Your task to perform on an android device: clear all cookies in the chrome app Image 0: 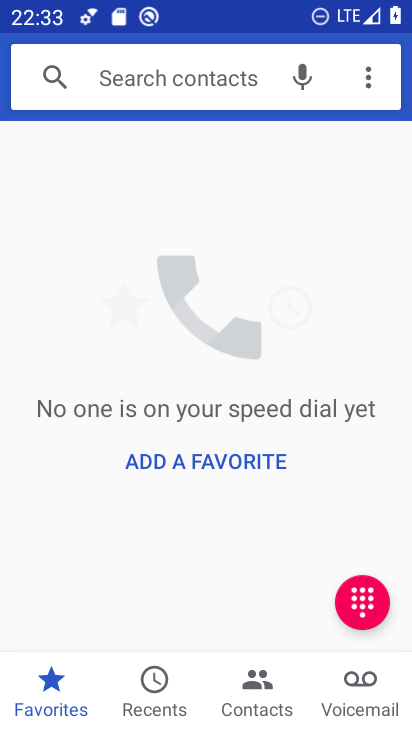
Step 0: press home button
Your task to perform on an android device: clear all cookies in the chrome app Image 1: 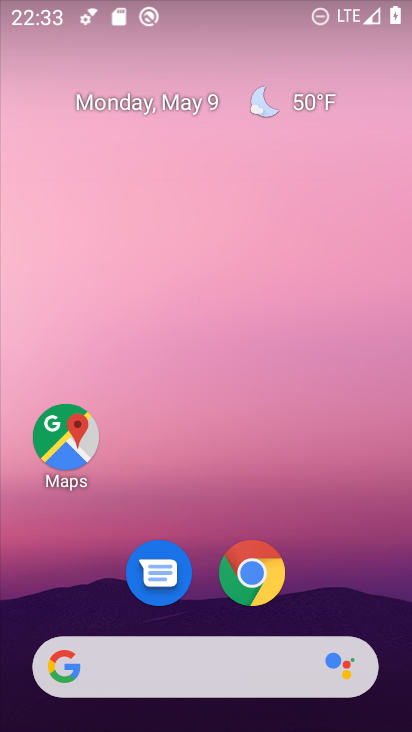
Step 1: click (251, 576)
Your task to perform on an android device: clear all cookies in the chrome app Image 2: 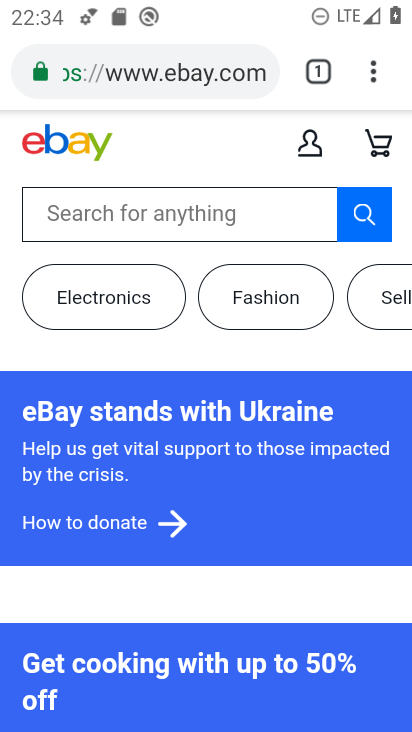
Step 2: drag from (369, 64) to (112, 251)
Your task to perform on an android device: clear all cookies in the chrome app Image 3: 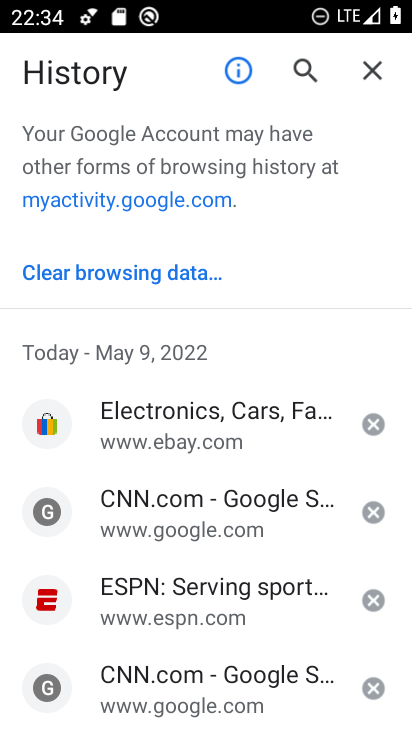
Step 3: click (157, 264)
Your task to perform on an android device: clear all cookies in the chrome app Image 4: 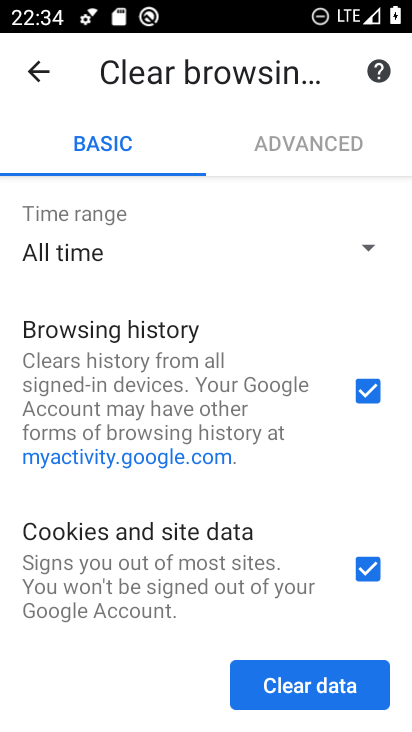
Step 4: click (320, 690)
Your task to perform on an android device: clear all cookies in the chrome app Image 5: 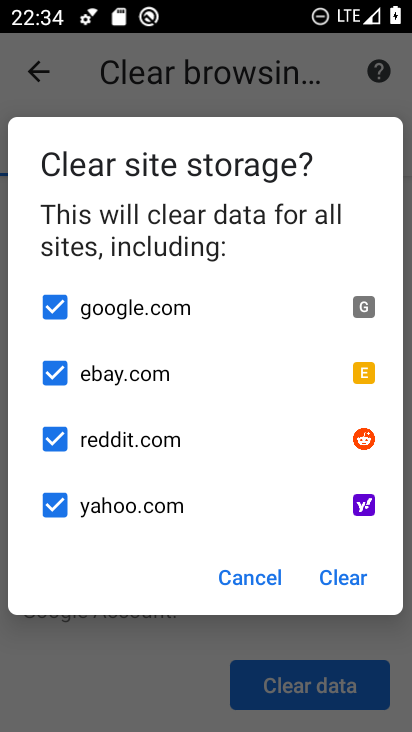
Step 5: click (348, 574)
Your task to perform on an android device: clear all cookies in the chrome app Image 6: 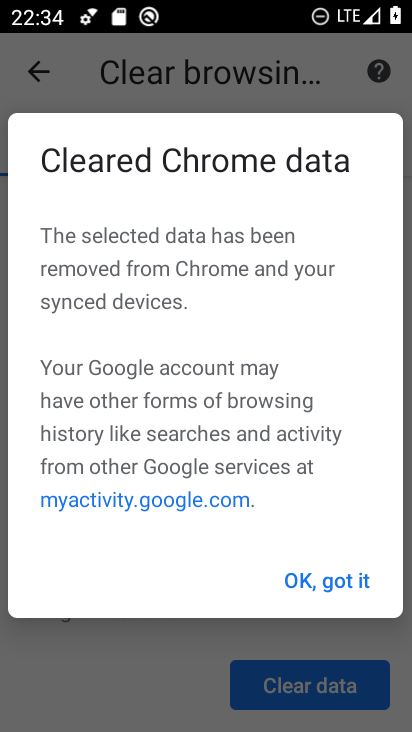
Step 6: task complete